Your task to perform on an android device: What's the weather going to be this weekend? Image 0: 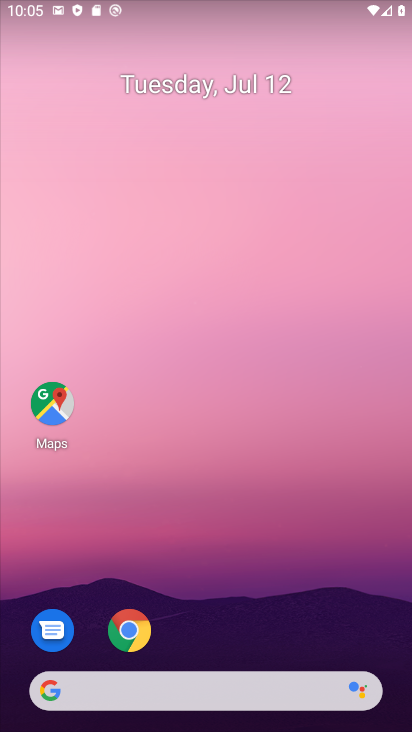
Step 0: click (241, 688)
Your task to perform on an android device: What's the weather going to be this weekend? Image 1: 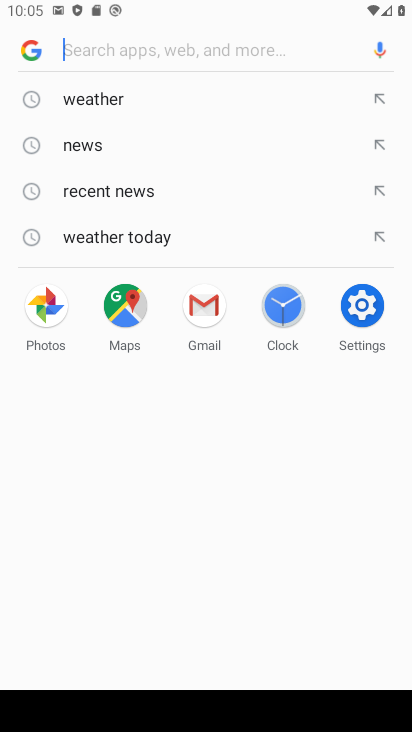
Step 1: click (110, 90)
Your task to perform on an android device: What's the weather going to be this weekend? Image 2: 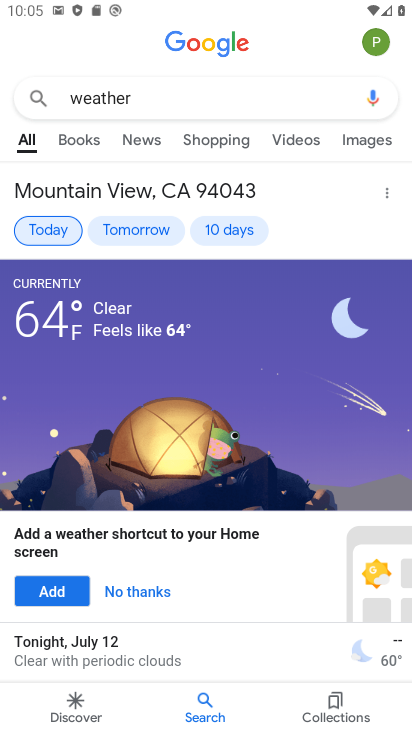
Step 2: click (228, 232)
Your task to perform on an android device: What's the weather going to be this weekend? Image 3: 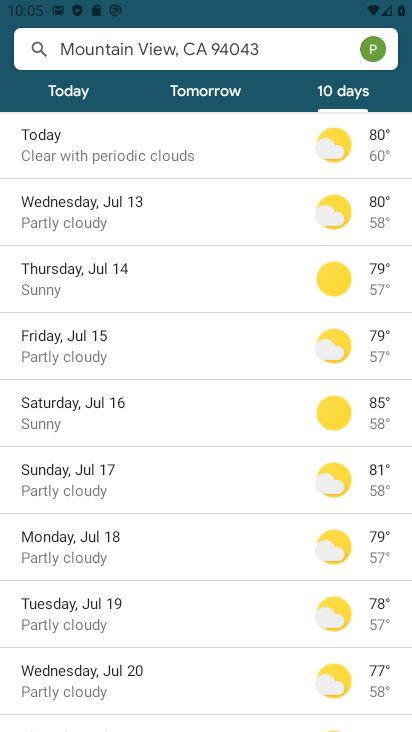
Step 3: click (155, 409)
Your task to perform on an android device: What's the weather going to be this weekend? Image 4: 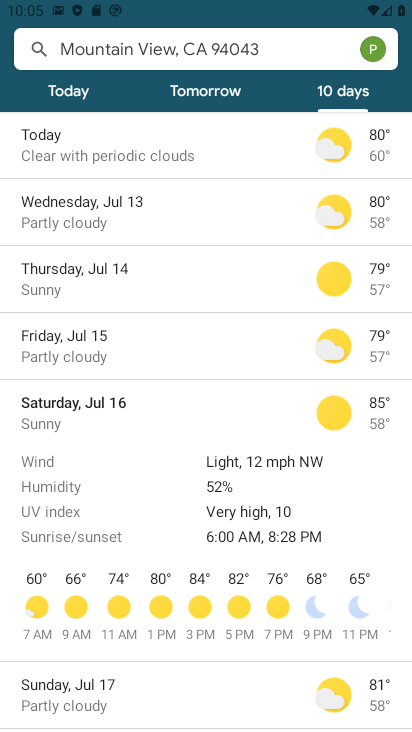
Step 4: task complete